Your task to perform on an android device: What's the weather going to be tomorrow? Image 0: 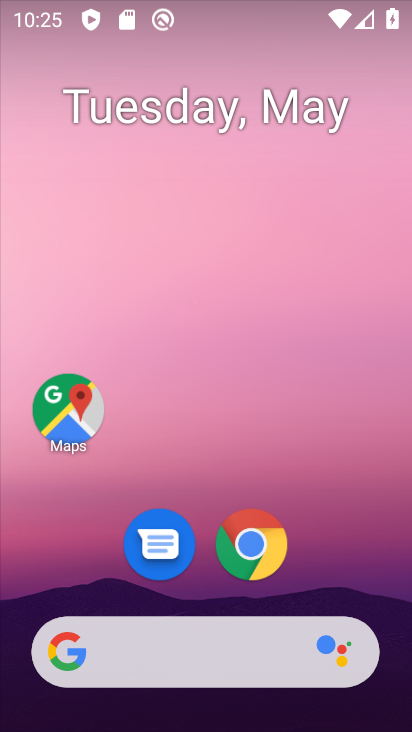
Step 0: drag from (375, 566) to (291, 92)
Your task to perform on an android device: What's the weather going to be tomorrow? Image 1: 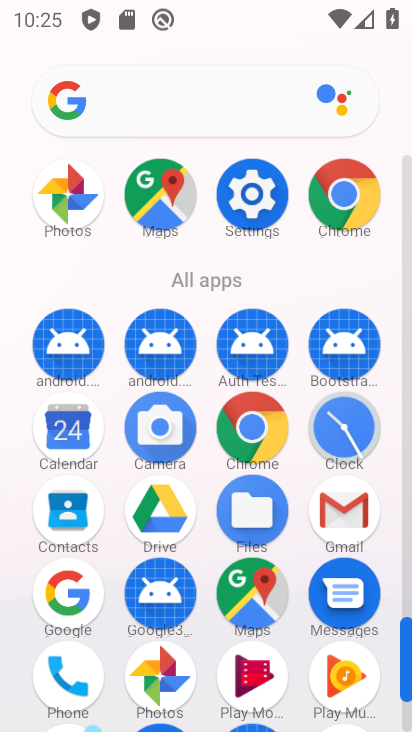
Step 1: click (347, 212)
Your task to perform on an android device: What's the weather going to be tomorrow? Image 2: 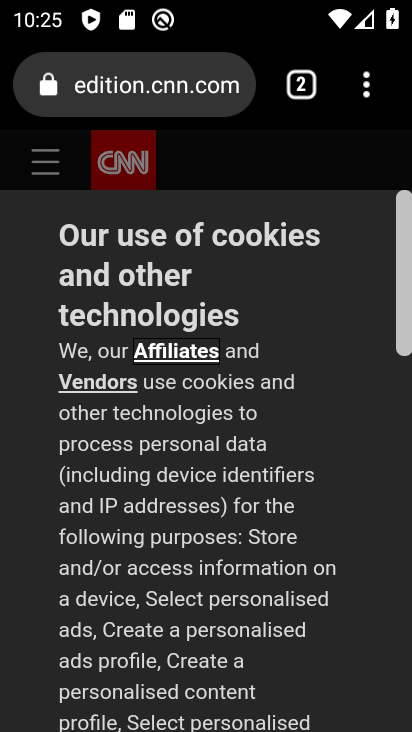
Step 2: click (184, 75)
Your task to perform on an android device: What's the weather going to be tomorrow? Image 3: 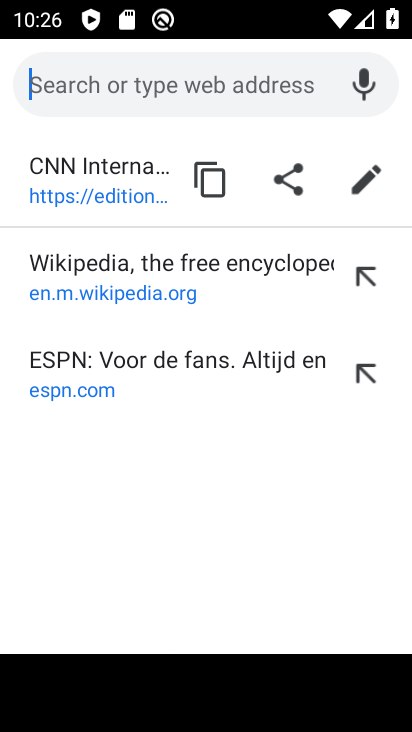
Step 3: type "What's the weather going to be tomorrow?"
Your task to perform on an android device: What's the weather going to be tomorrow? Image 4: 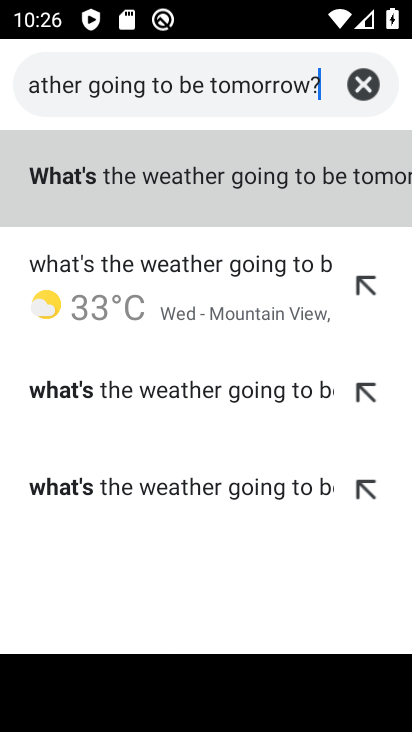
Step 4: click (358, 181)
Your task to perform on an android device: What's the weather going to be tomorrow? Image 5: 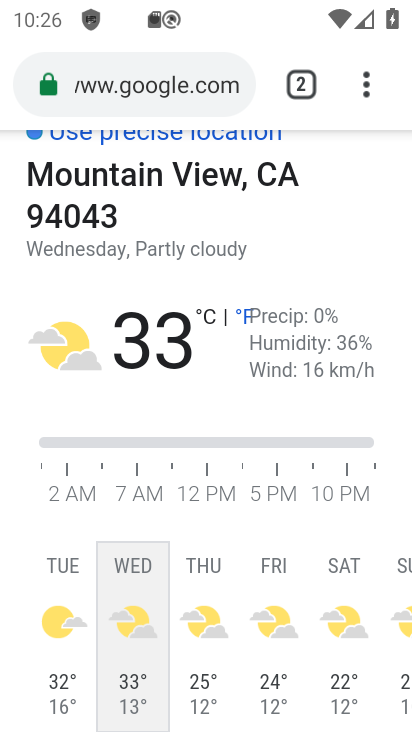
Step 5: task complete